Your task to perform on an android device: change the clock style Image 0: 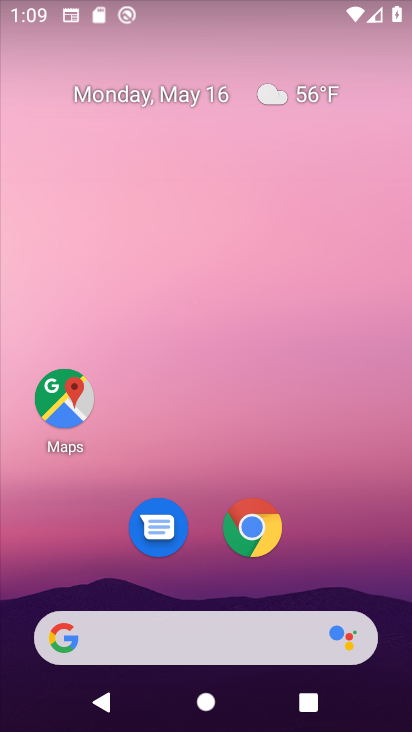
Step 0: drag from (241, 623) to (183, 118)
Your task to perform on an android device: change the clock style Image 1: 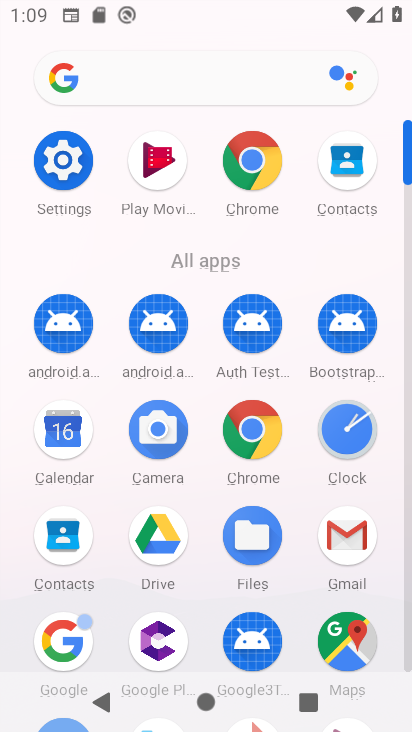
Step 1: click (359, 429)
Your task to perform on an android device: change the clock style Image 2: 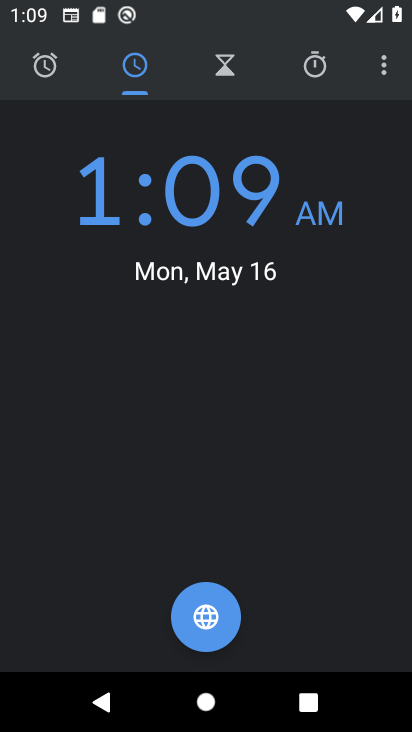
Step 2: click (393, 69)
Your task to perform on an android device: change the clock style Image 3: 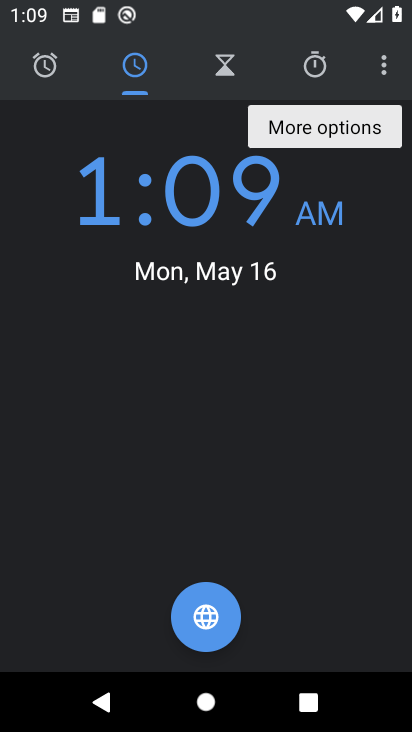
Step 3: click (393, 69)
Your task to perform on an android device: change the clock style Image 4: 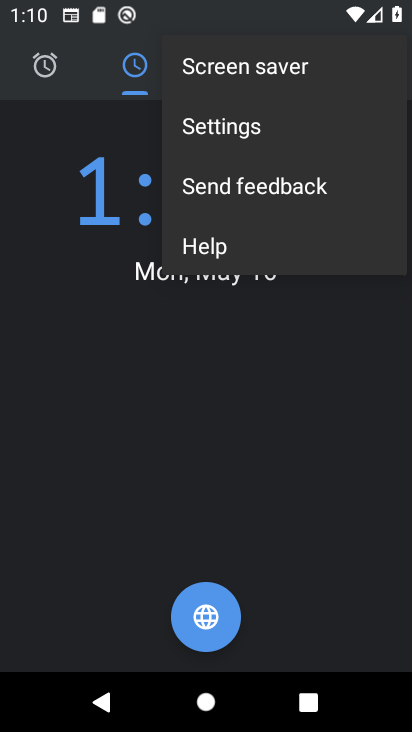
Step 4: click (280, 111)
Your task to perform on an android device: change the clock style Image 5: 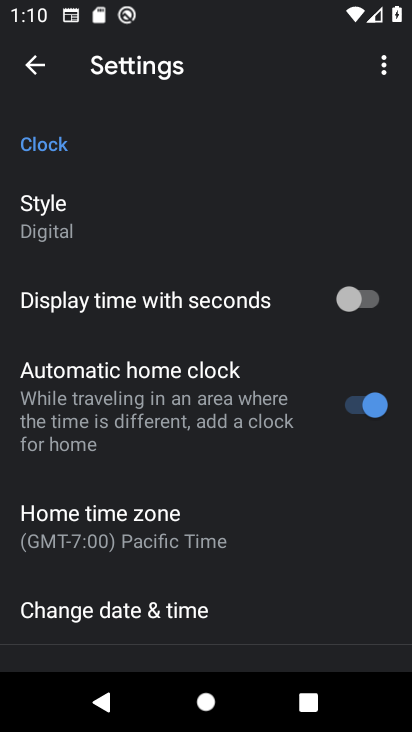
Step 5: click (99, 223)
Your task to perform on an android device: change the clock style Image 6: 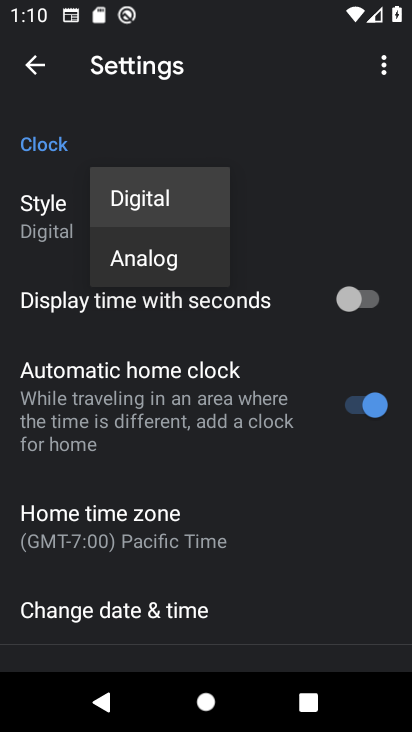
Step 6: click (138, 266)
Your task to perform on an android device: change the clock style Image 7: 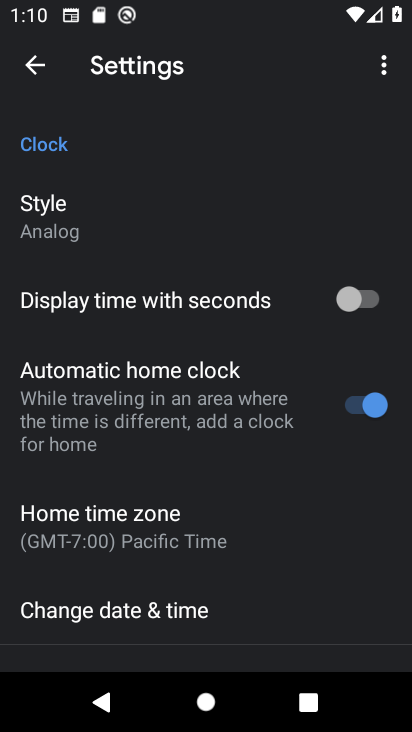
Step 7: task complete